Your task to perform on an android device: see creations saved in the google photos Image 0: 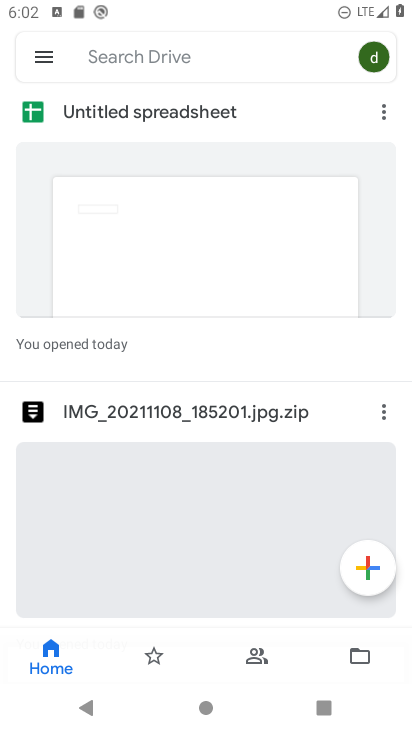
Step 0: press home button
Your task to perform on an android device: see creations saved in the google photos Image 1: 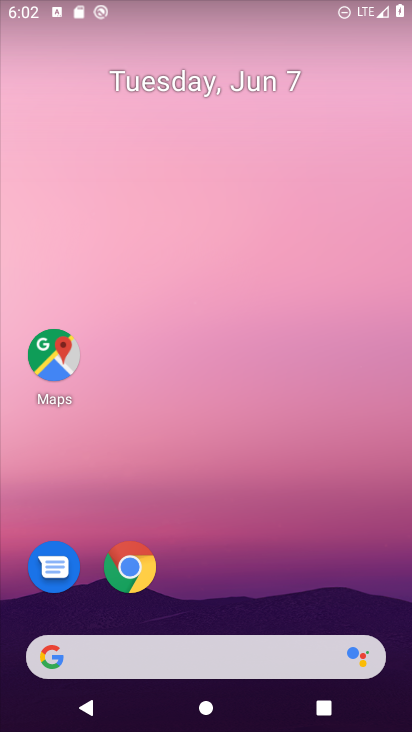
Step 1: drag from (228, 641) to (277, 89)
Your task to perform on an android device: see creations saved in the google photos Image 2: 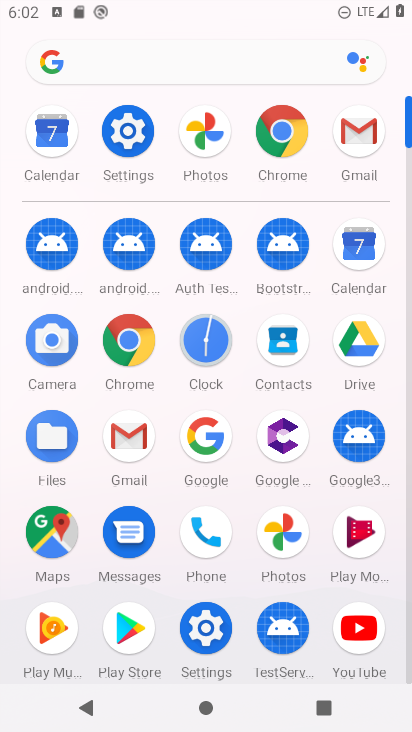
Step 2: click (295, 531)
Your task to perform on an android device: see creations saved in the google photos Image 3: 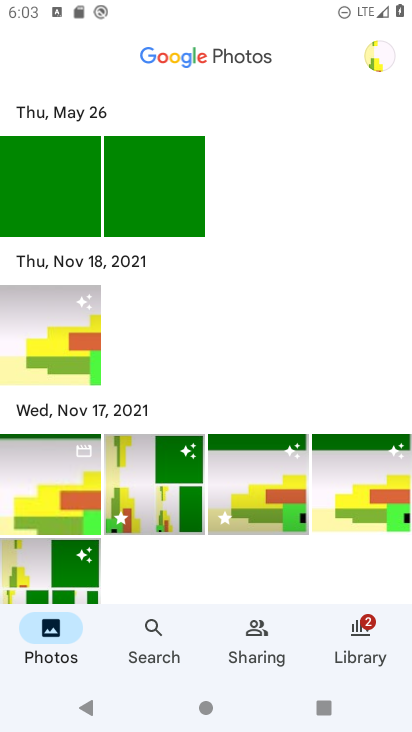
Step 3: task complete